Your task to perform on an android device: open app "Google Play Music" (install if not already installed) Image 0: 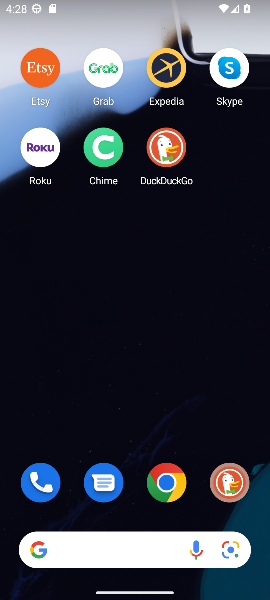
Step 0: drag from (122, 516) to (128, 2)
Your task to perform on an android device: open app "Google Play Music" (install if not already installed) Image 1: 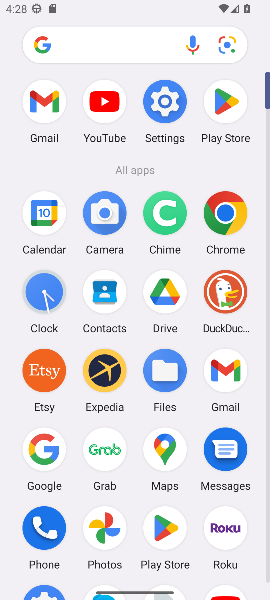
Step 1: click (170, 521)
Your task to perform on an android device: open app "Google Play Music" (install if not already installed) Image 2: 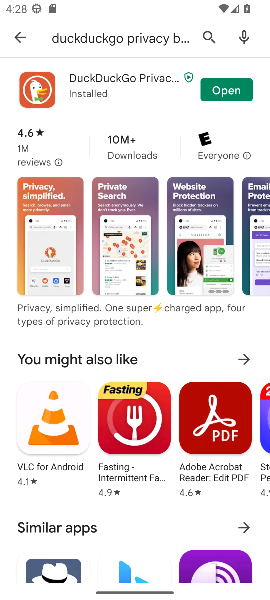
Step 2: click (208, 31)
Your task to perform on an android device: open app "Google Play Music" (install if not already installed) Image 3: 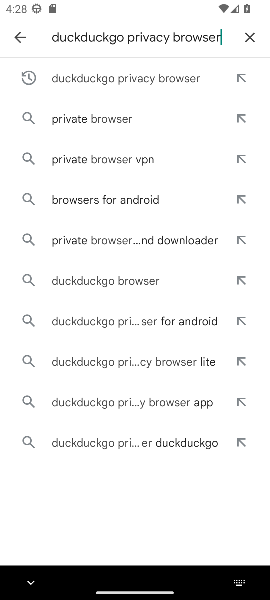
Step 3: click (245, 33)
Your task to perform on an android device: open app "Google Play Music" (install if not already installed) Image 4: 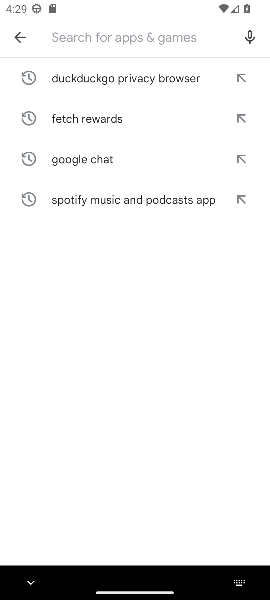
Step 4: type "Google Play music"
Your task to perform on an android device: open app "Google Play Music" (install if not already installed) Image 5: 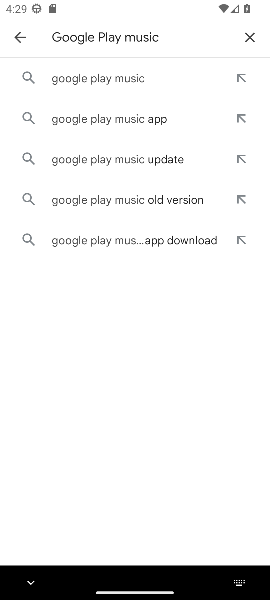
Step 5: click (96, 77)
Your task to perform on an android device: open app "Google Play Music" (install if not already installed) Image 6: 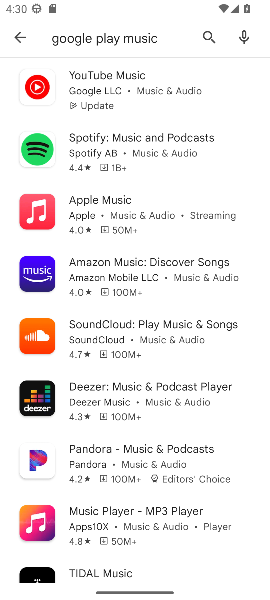
Step 6: click (115, 79)
Your task to perform on an android device: open app "Google Play Music" (install if not already installed) Image 7: 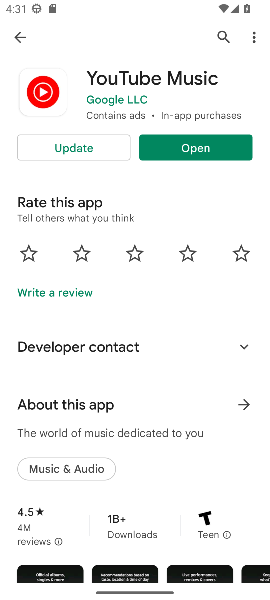
Step 7: task complete